Your task to perform on an android device: toggle data saver in the chrome app Image 0: 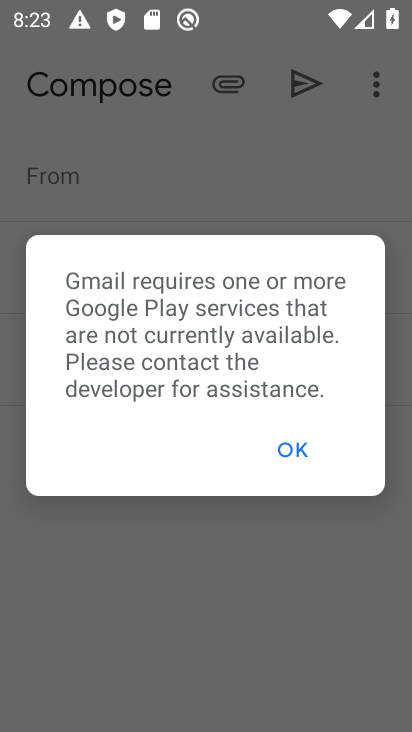
Step 0: click (249, 543)
Your task to perform on an android device: toggle data saver in the chrome app Image 1: 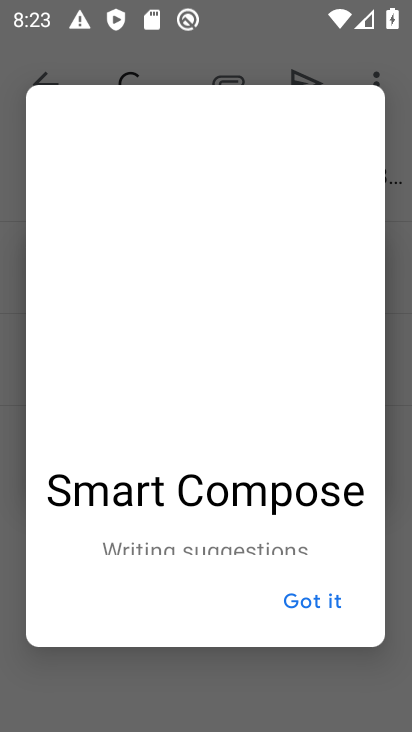
Step 1: press home button
Your task to perform on an android device: toggle data saver in the chrome app Image 2: 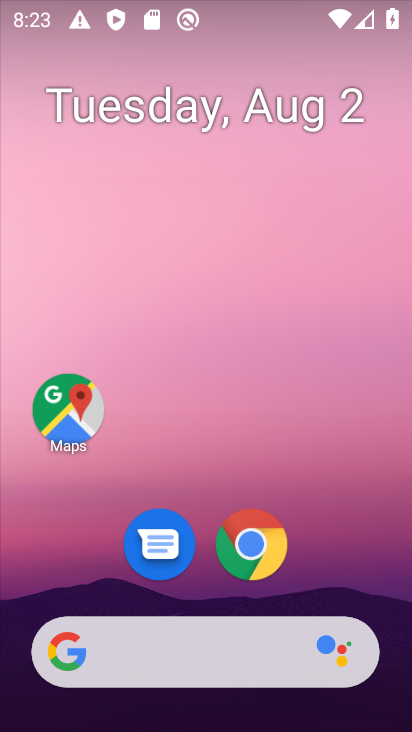
Step 2: click (247, 539)
Your task to perform on an android device: toggle data saver in the chrome app Image 3: 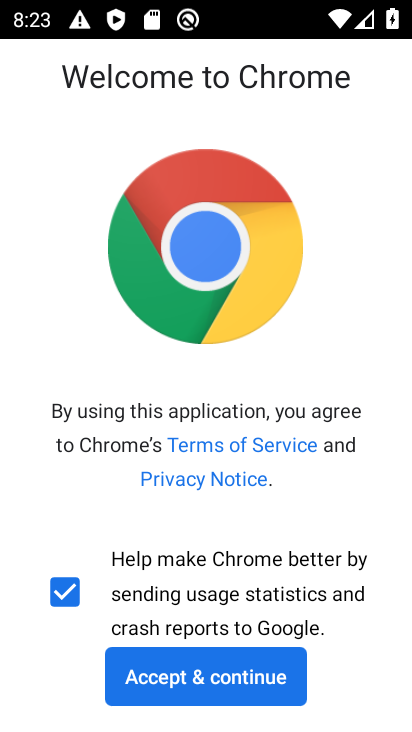
Step 3: click (221, 671)
Your task to perform on an android device: toggle data saver in the chrome app Image 4: 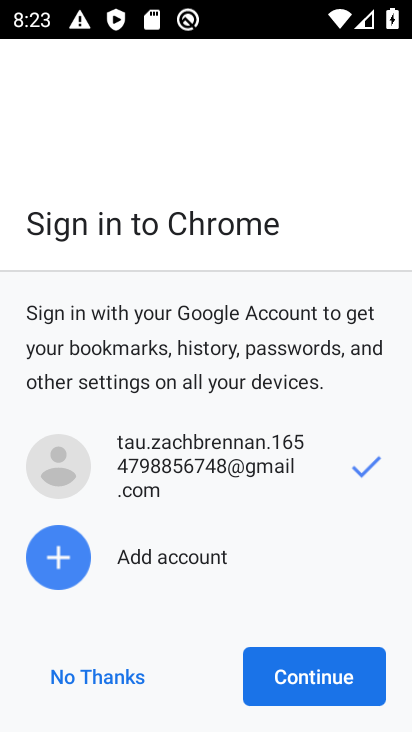
Step 4: click (283, 671)
Your task to perform on an android device: toggle data saver in the chrome app Image 5: 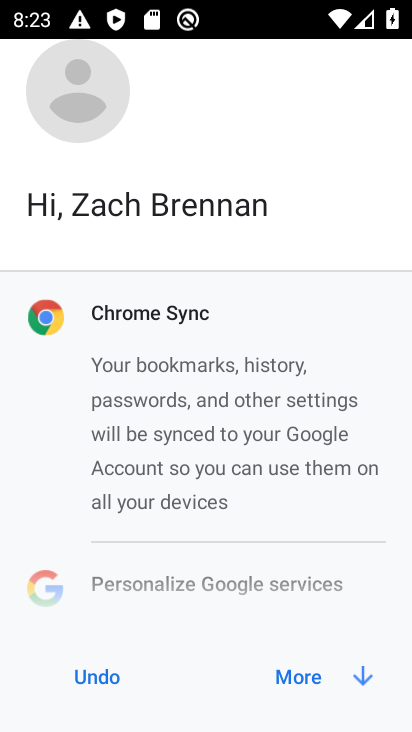
Step 5: click (297, 679)
Your task to perform on an android device: toggle data saver in the chrome app Image 6: 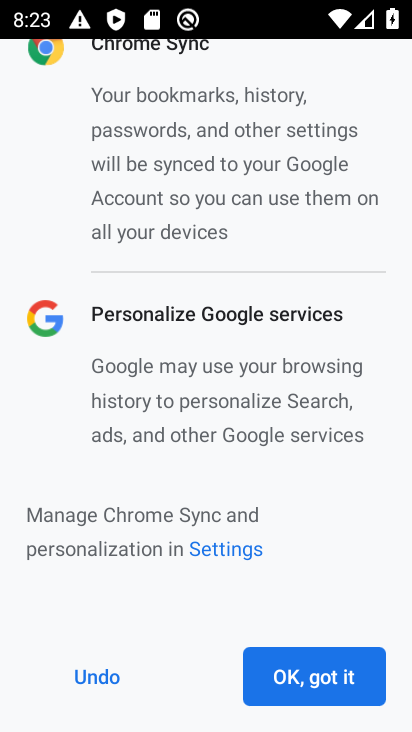
Step 6: click (297, 679)
Your task to perform on an android device: toggle data saver in the chrome app Image 7: 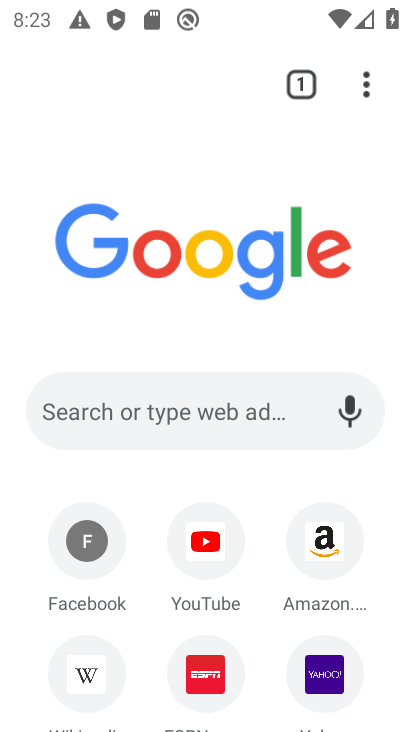
Step 7: drag from (366, 85) to (187, 597)
Your task to perform on an android device: toggle data saver in the chrome app Image 8: 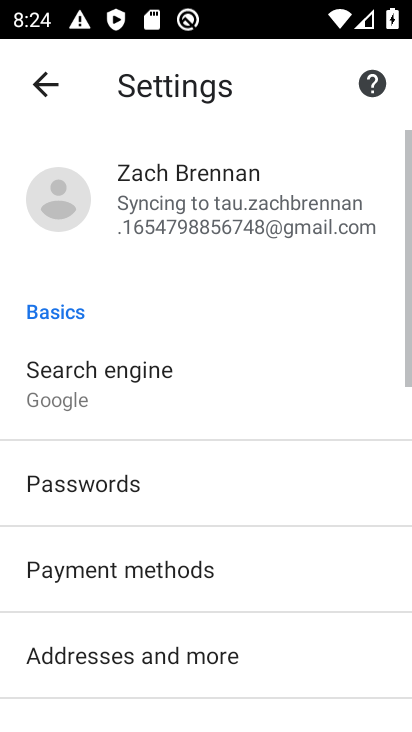
Step 8: drag from (205, 598) to (296, 200)
Your task to perform on an android device: toggle data saver in the chrome app Image 9: 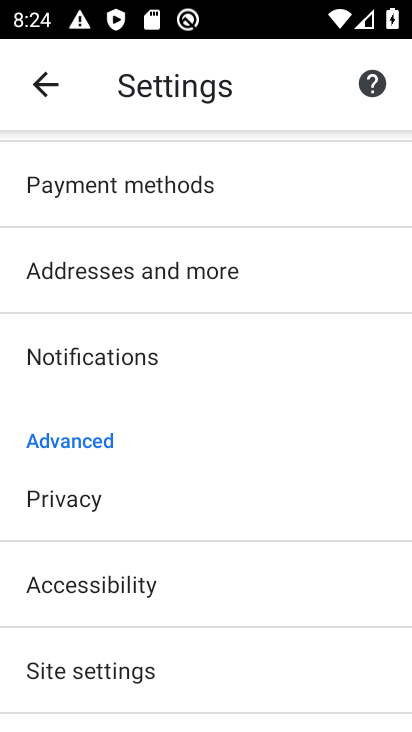
Step 9: drag from (188, 597) to (245, 359)
Your task to perform on an android device: toggle data saver in the chrome app Image 10: 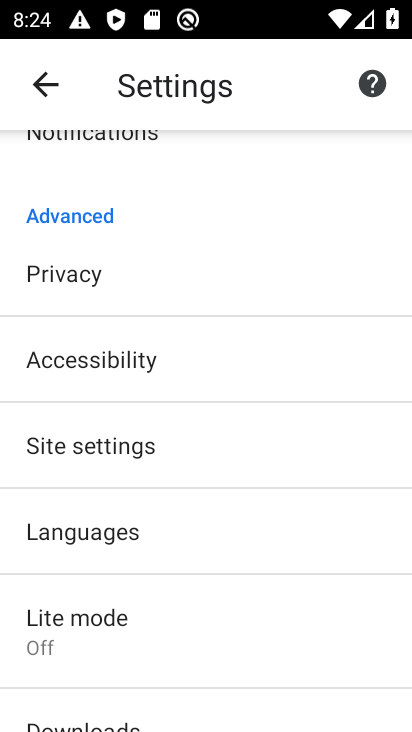
Step 10: click (140, 619)
Your task to perform on an android device: toggle data saver in the chrome app Image 11: 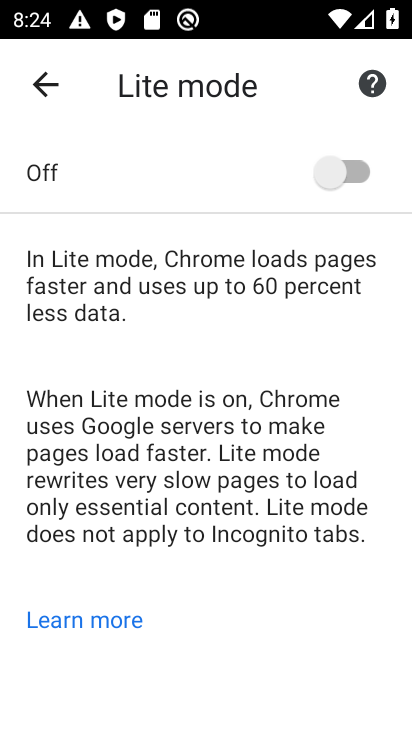
Step 11: click (355, 170)
Your task to perform on an android device: toggle data saver in the chrome app Image 12: 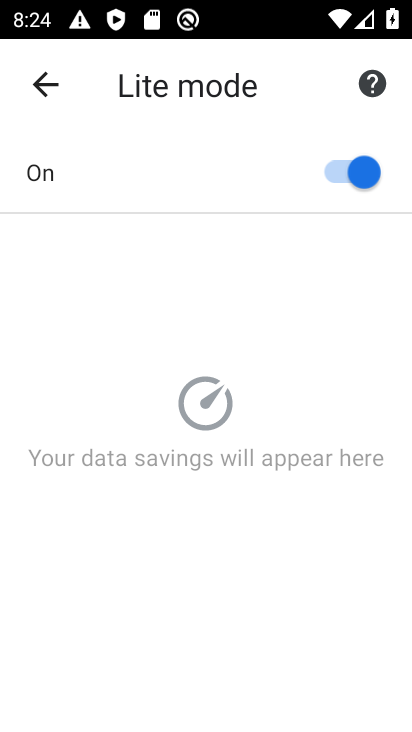
Step 12: task complete